Your task to perform on an android device: add a contact in the contacts app Image 0: 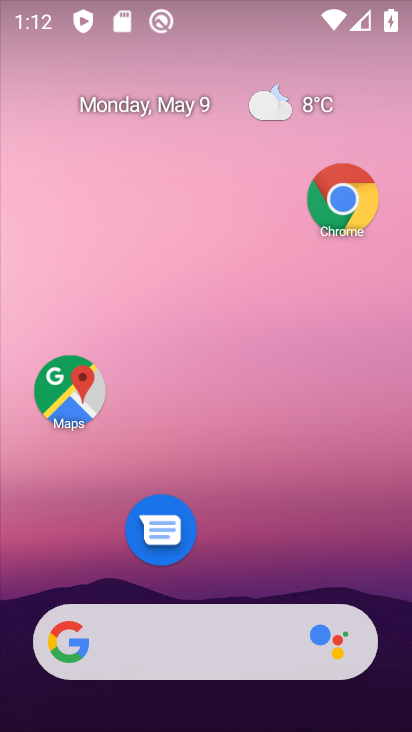
Step 0: press home button
Your task to perform on an android device: add a contact in the contacts app Image 1: 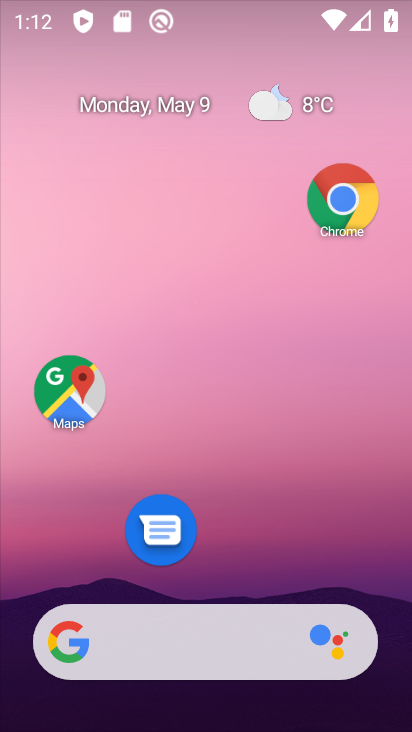
Step 1: drag from (269, 540) to (335, 99)
Your task to perform on an android device: add a contact in the contacts app Image 2: 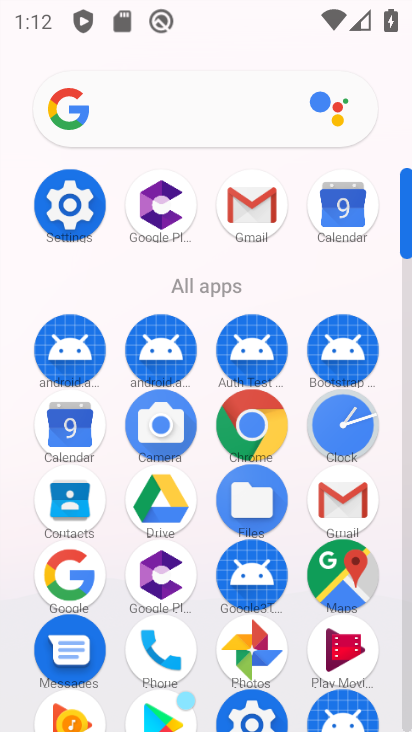
Step 2: click (76, 509)
Your task to perform on an android device: add a contact in the contacts app Image 3: 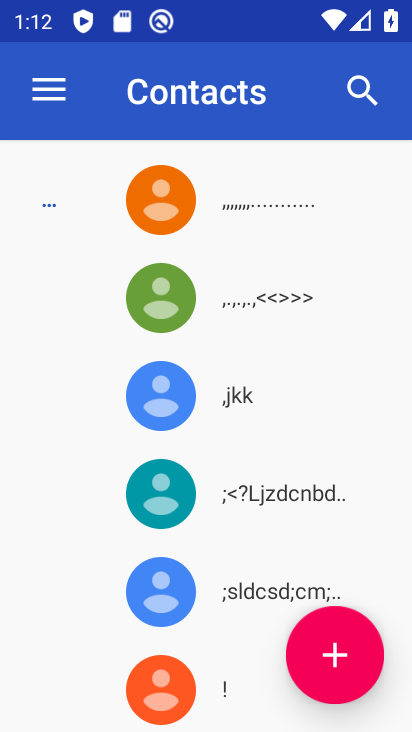
Step 3: click (343, 655)
Your task to perform on an android device: add a contact in the contacts app Image 4: 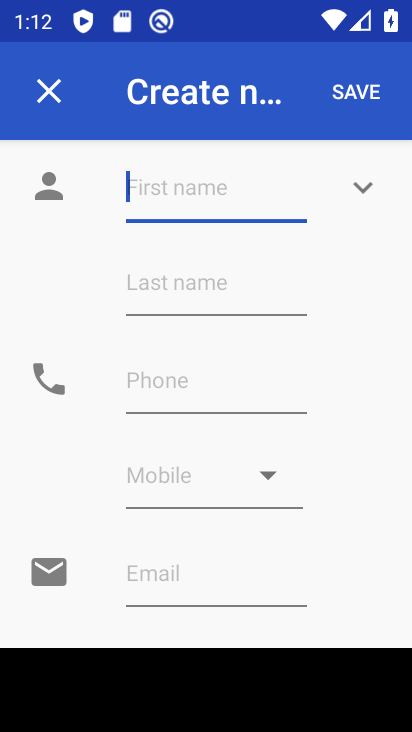
Step 4: type "ghfgdgh"
Your task to perform on an android device: add a contact in the contacts app Image 5: 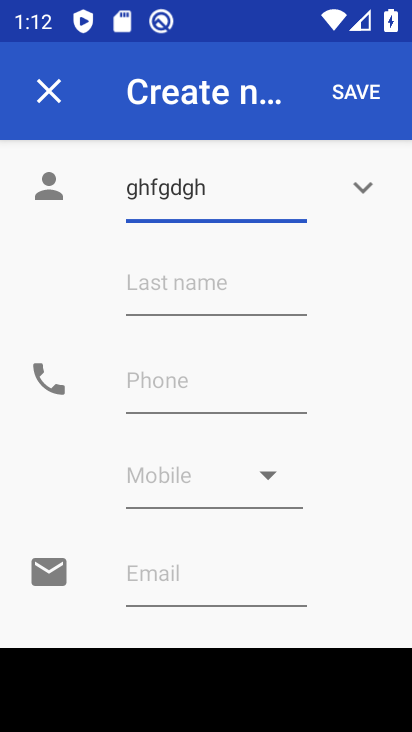
Step 5: click (343, 90)
Your task to perform on an android device: add a contact in the contacts app Image 6: 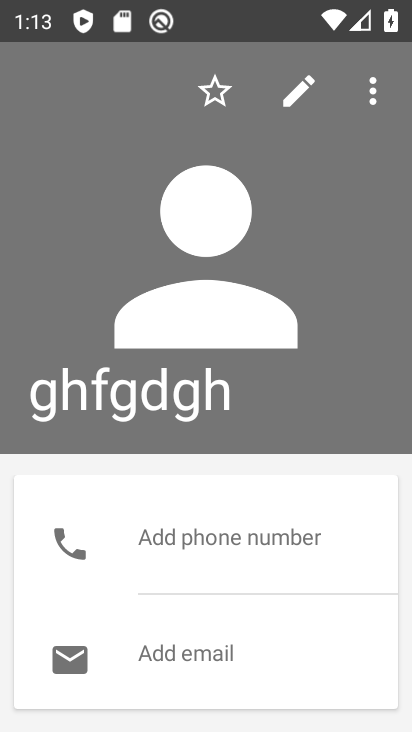
Step 6: task complete